Your task to perform on an android device: Open Google Chrome and click the shortcut for Amazon.com Image 0: 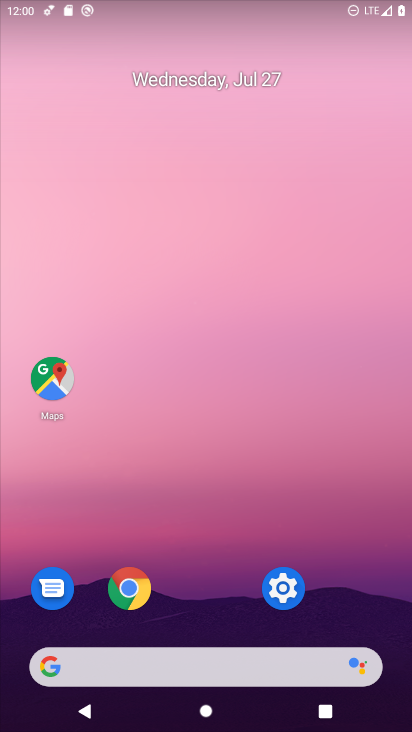
Step 0: press home button
Your task to perform on an android device: Open Google Chrome and click the shortcut for Amazon.com Image 1: 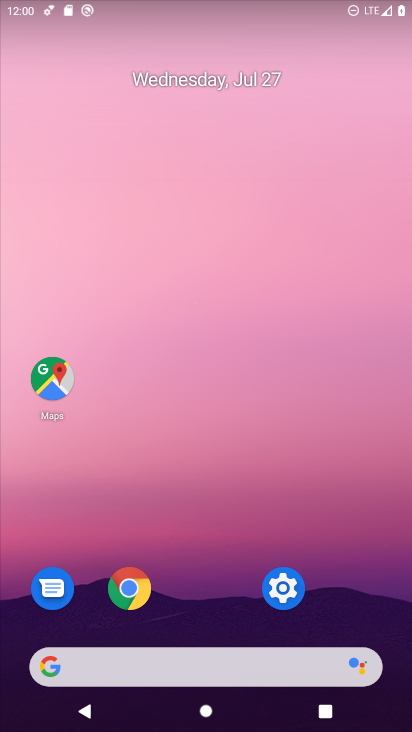
Step 1: click (144, 607)
Your task to perform on an android device: Open Google Chrome and click the shortcut for Amazon.com Image 2: 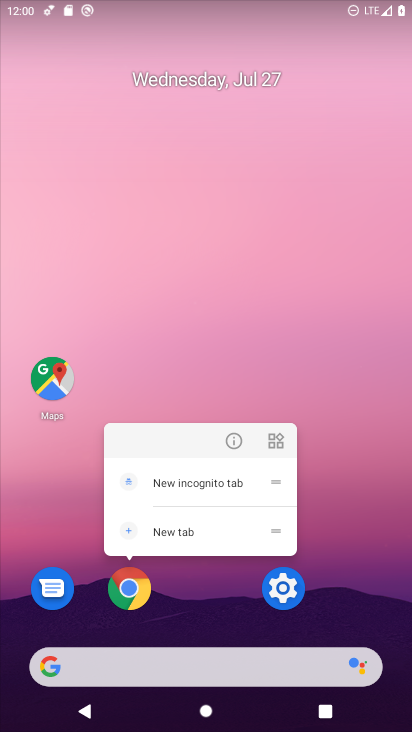
Step 2: click (145, 593)
Your task to perform on an android device: Open Google Chrome and click the shortcut for Amazon.com Image 3: 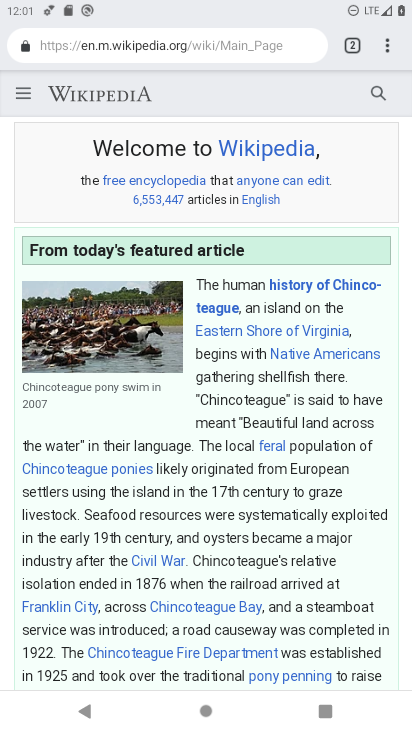
Step 3: click (355, 39)
Your task to perform on an android device: Open Google Chrome and click the shortcut for Amazon.com Image 4: 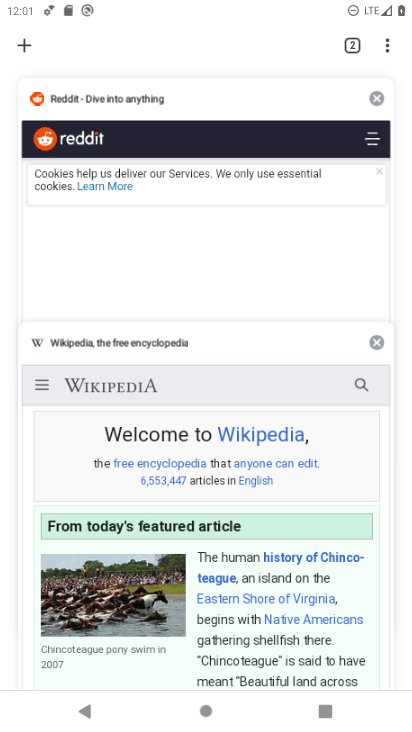
Step 4: click (29, 48)
Your task to perform on an android device: Open Google Chrome and click the shortcut for Amazon.com Image 5: 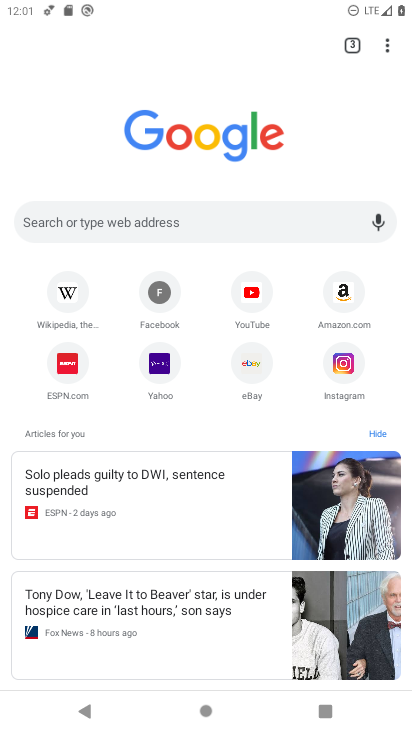
Step 5: click (336, 300)
Your task to perform on an android device: Open Google Chrome and click the shortcut for Amazon.com Image 6: 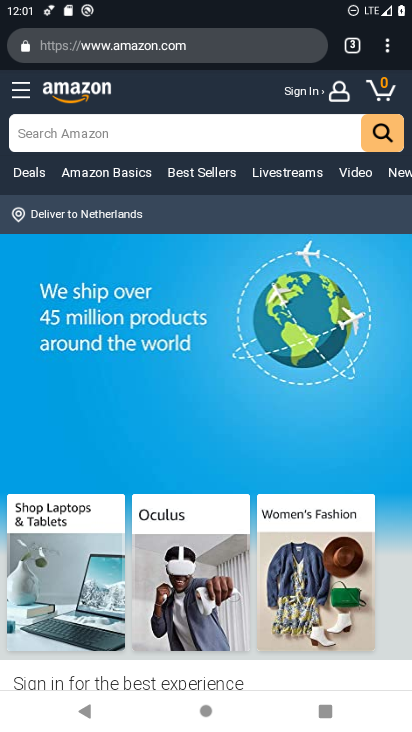
Step 6: click (381, 57)
Your task to perform on an android device: Open Google Chrome and click the shortcut for Amazon.com Image 7: 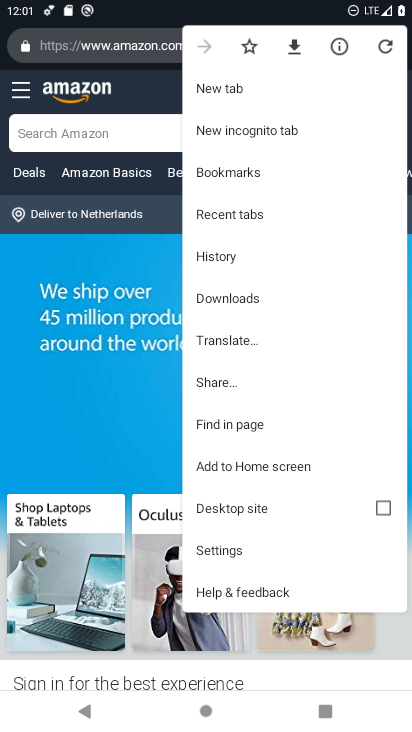
Step 7: click (232, 467)
Your task to perform on an android device: Open Google Chrome and click the shortcut for Amazon.com Image 8: 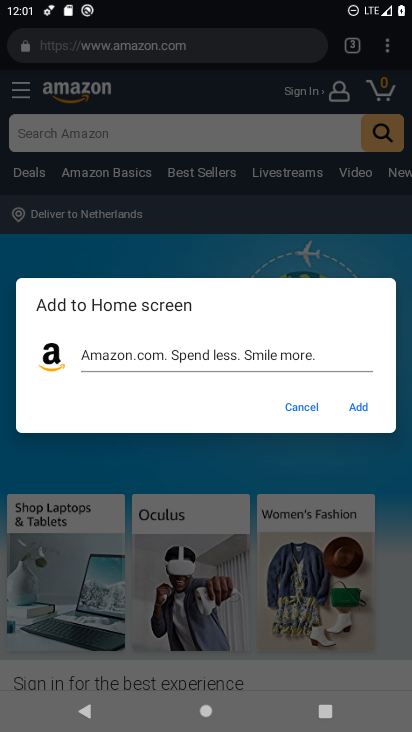
Step 8: click (366, 403)
Your task to perform on an android device: Open Google Chrome and click the shortcut for Amazon.com Image 9: 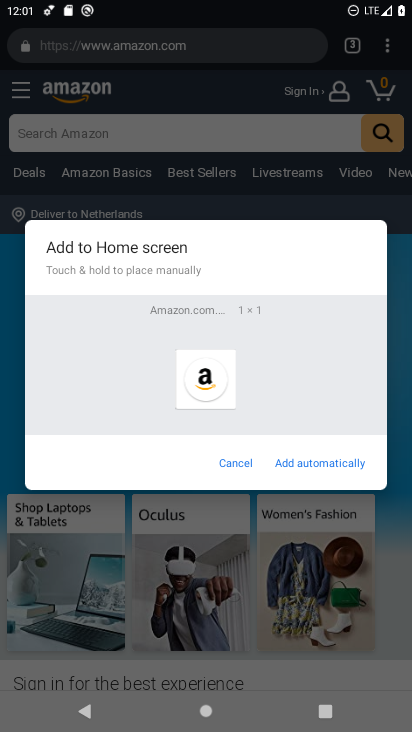
Step 9: click (334, 459)
Your task to perform on an android device: Open Google Chrome and click the shortcut for Amazon.com Image 10: 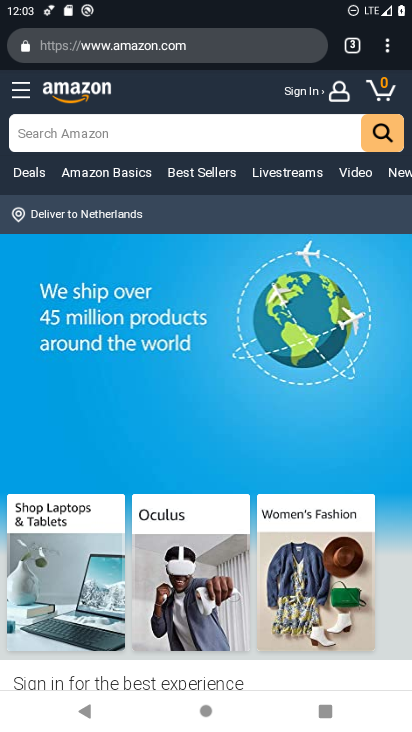
Step 10: task complete